Your task to perform on an android device: Check the weather Image 0: 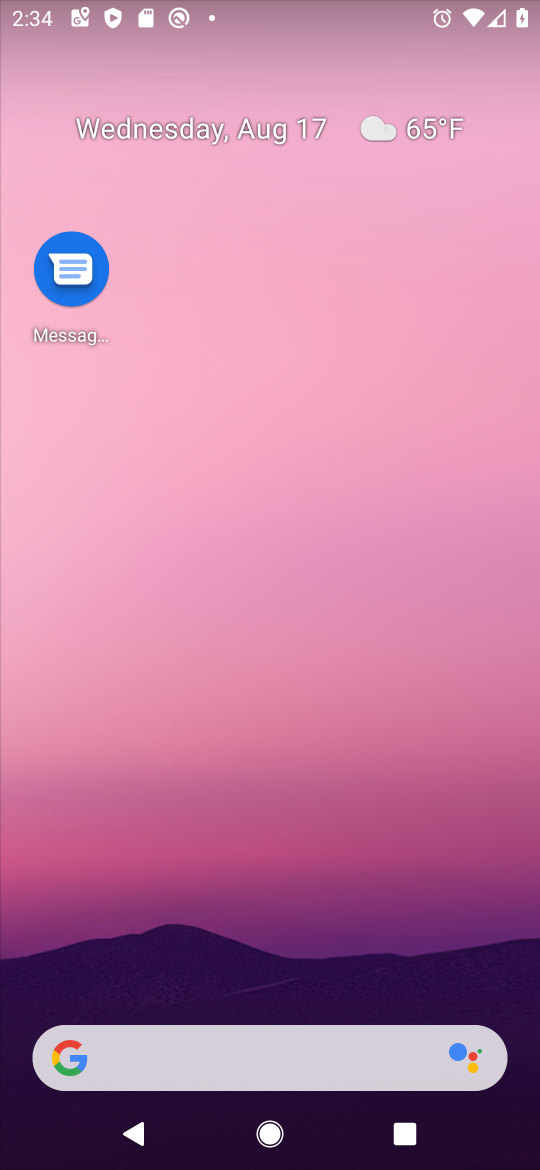
Step 0: press home button
Your task to perform on an android device: Check the weather Image 1: 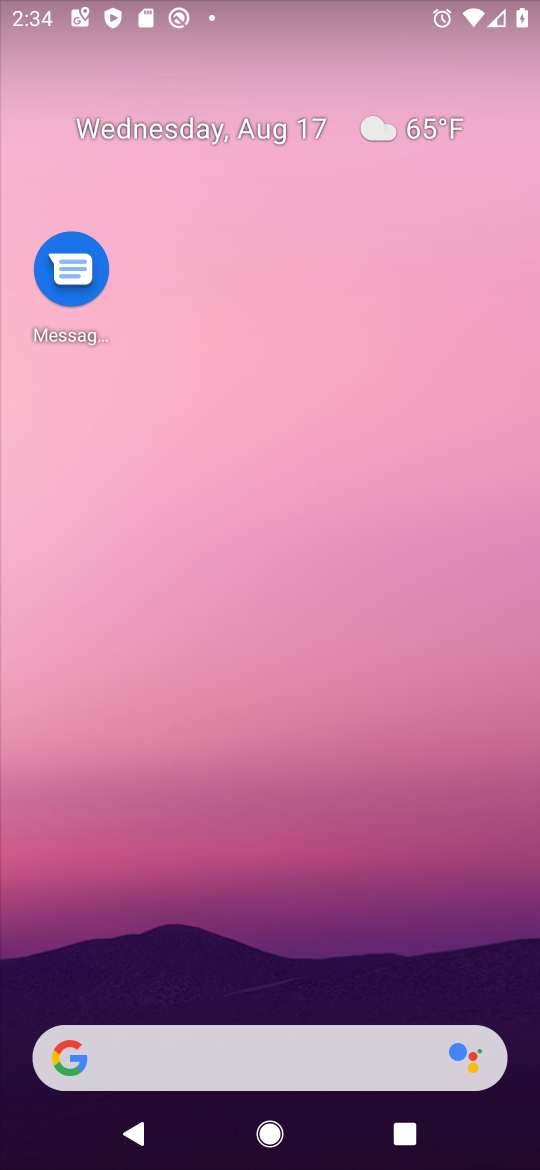
Step 1: click (245, 1036)
Your task to perform on an android device: Check the weather Image 2: 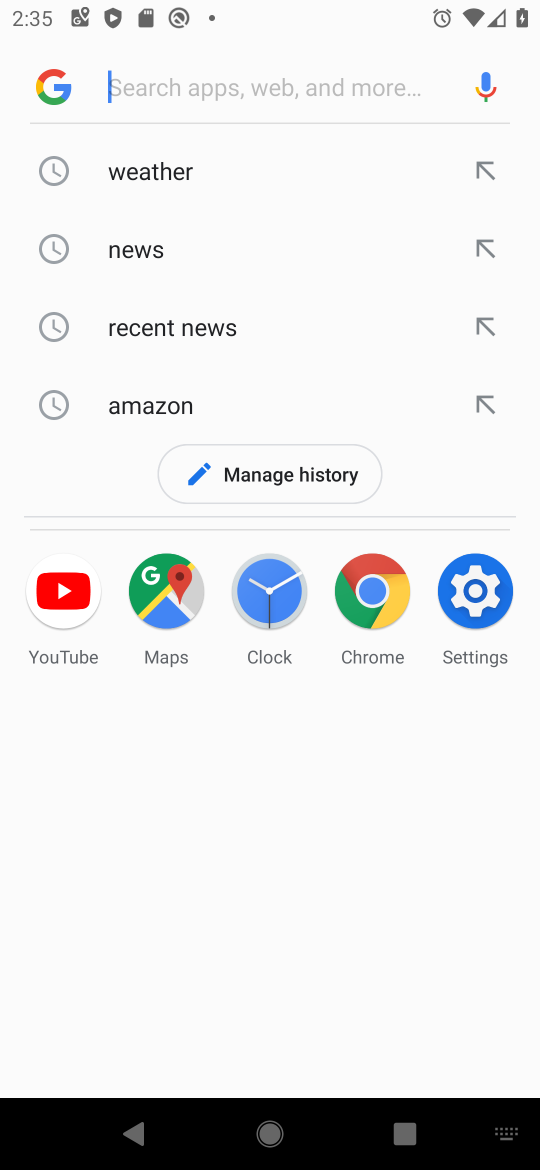
Step 2: click (209, 169)
Your task to perform on an android device: Check the weather Image 3: 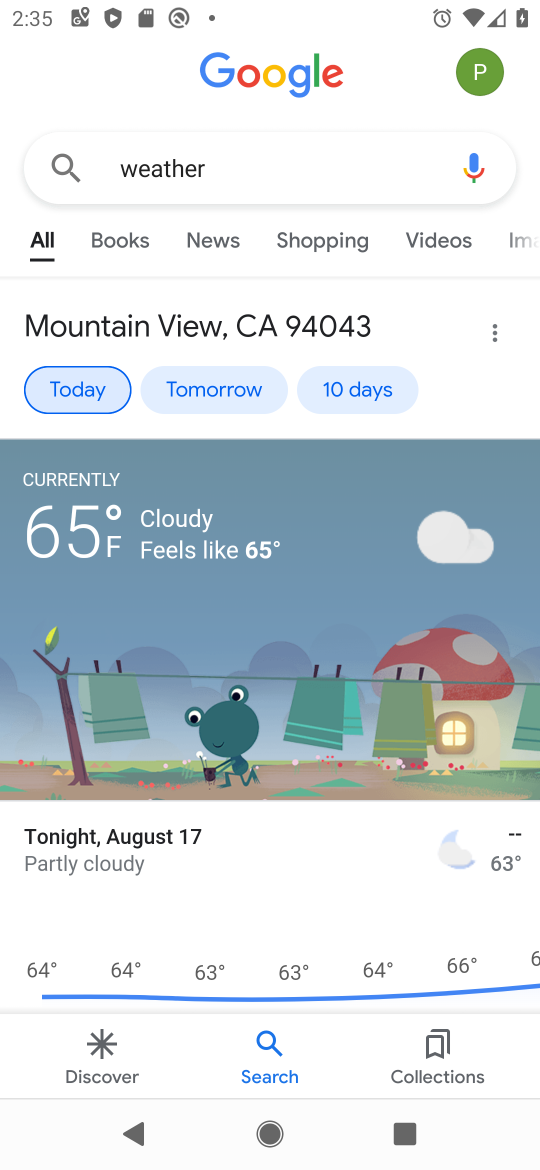
Step 3: click (213, 169)
Your task to perform on an android device: Check the weather Image 4: 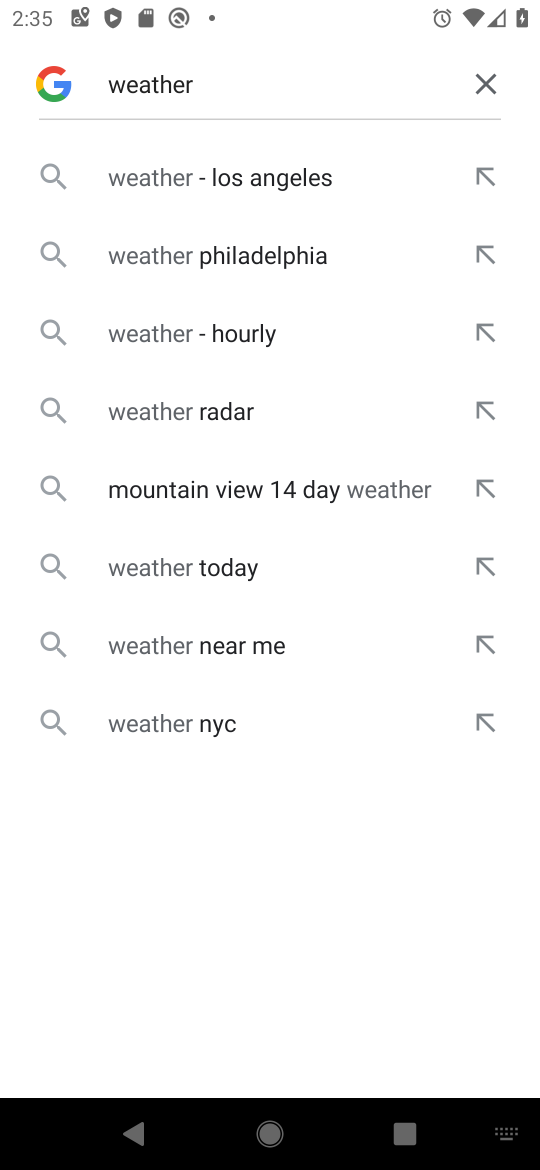
Step 4: click (233, 547)
Your task to perform on an android device: Check the weather Image 5: 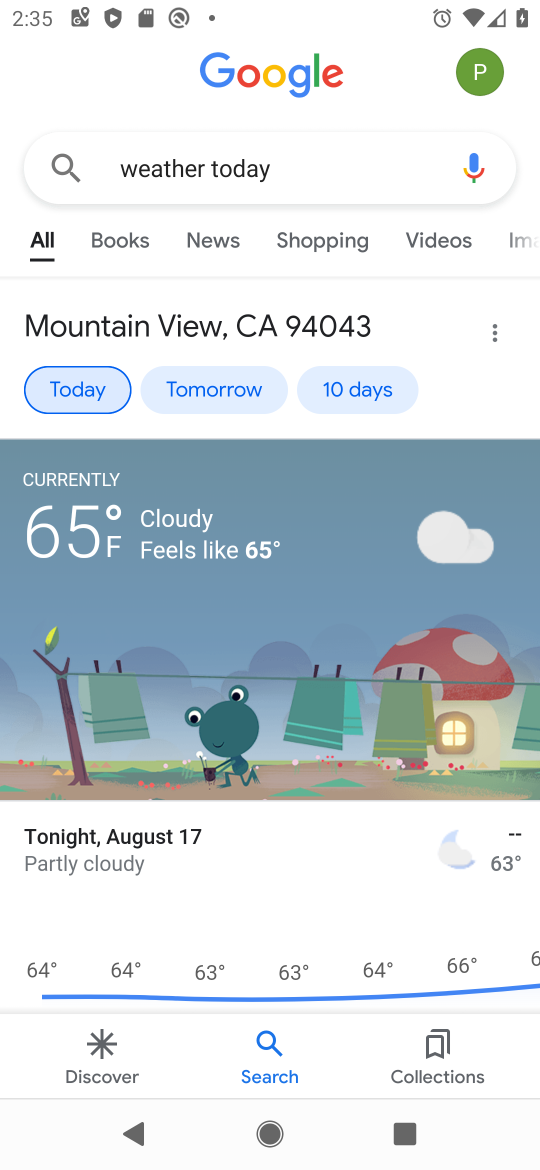
Step 5: task complete